Your task to perform on an android device: check google app version Image 0: 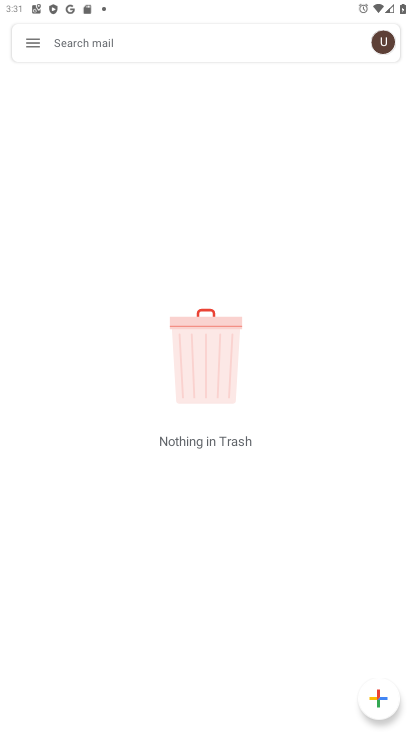
Step 0: press home button
Your task to perform on an android device: check google app version Image 1: 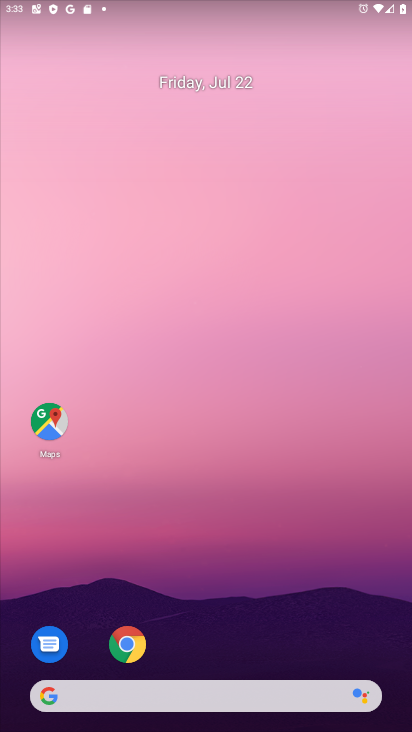
Step 1: click (143, 696)
Your task to perform on an android device: check google app version Image 2: 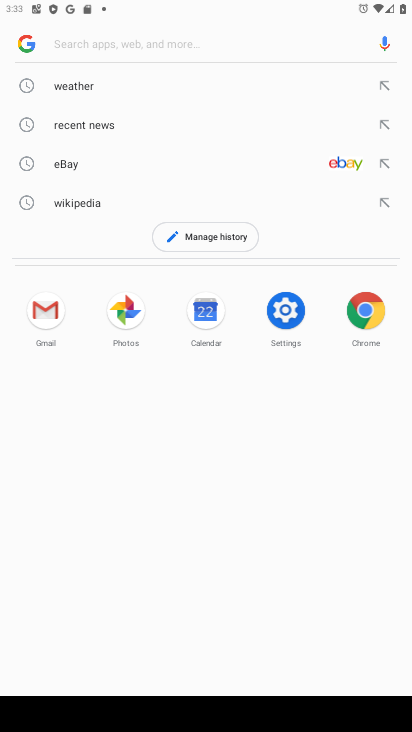
Step 2: click (27, 39)
Your task to perform on an android device: check google app version Image 3: 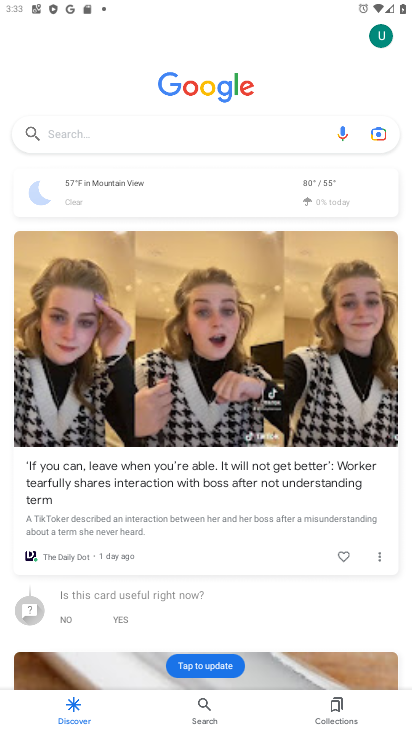
Step 3: click (384, 39)
Your task to perform on an android device: check google app version Image 4: 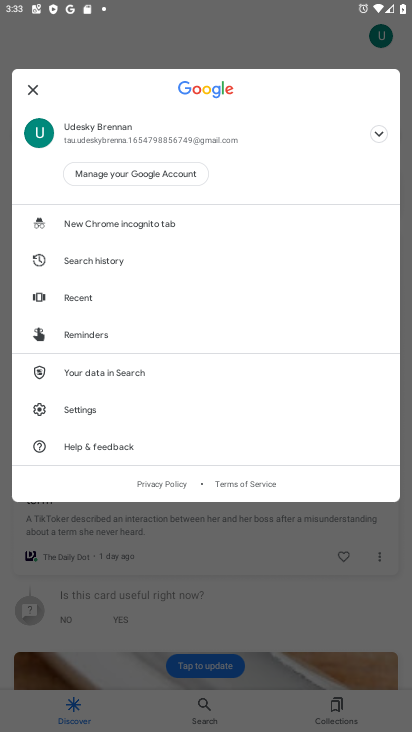
Step 4: click (90, 405)
Your task to perform on an android device: check google app version Image 5: 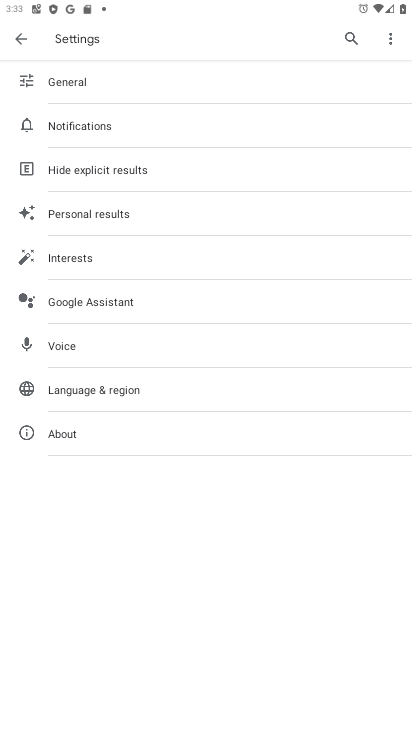
Step 5: click (77, 437)
Your task to perform on an android device: check google app version Image 6: 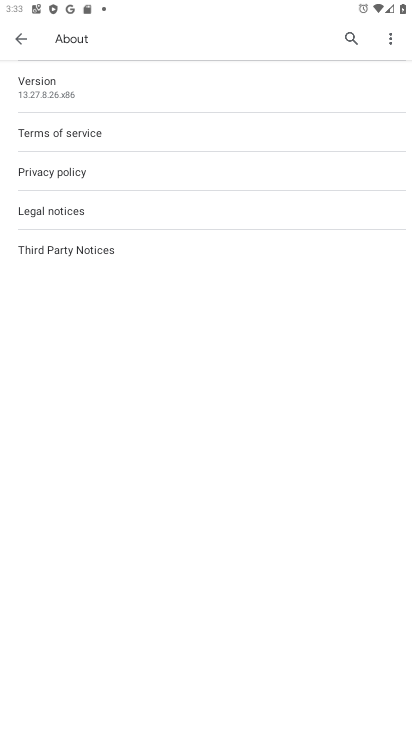
Step 6: task complete